Your task to perform on an android device: Play the last video I watched on Youtube Image 0: 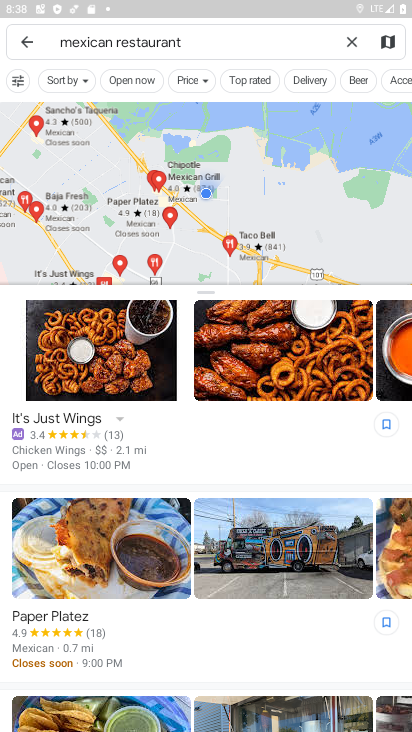
Step 0: press home button
Your task to perform on an android device: Play the last video I watched on Youtube Image 1: 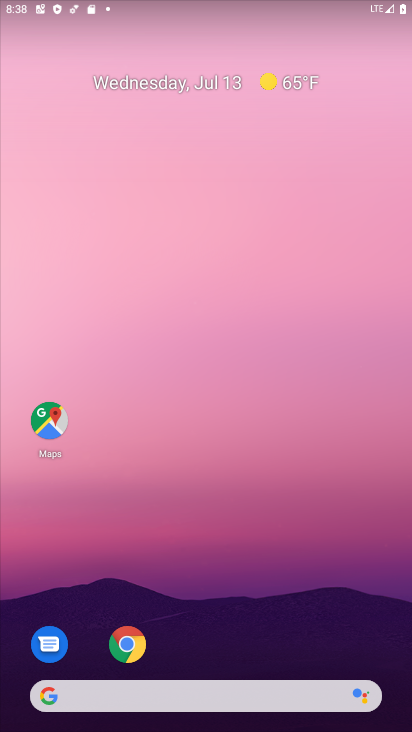
Step 1: drag from (327, 548) to (214, 41)
Your task to perform on an android device: Play the last video I watched on Youtube Image 2: 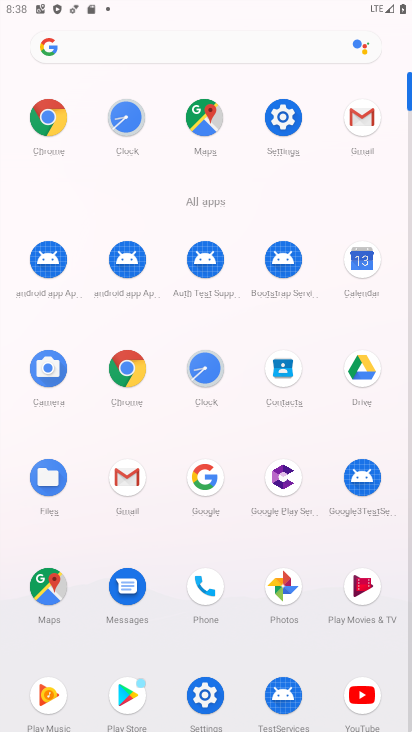
Step 2: click (359, 673)
Your task to perform on an android device: Play the last video I watched on Youtube Image 3: 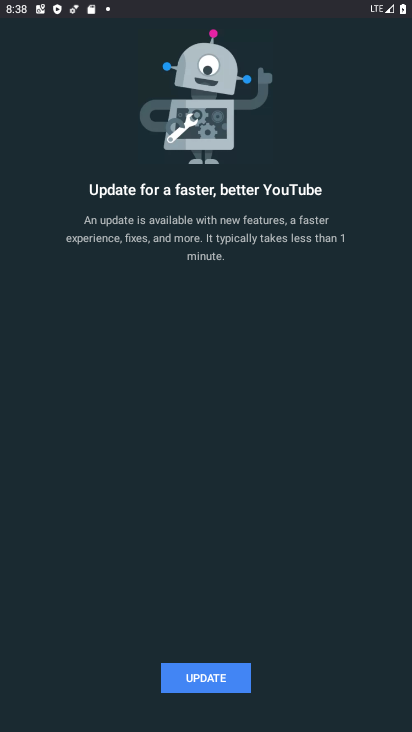
Step 3: click (227, 678)
Your task to perform on an android device: Play the last video I watched on Youtube Image 4: 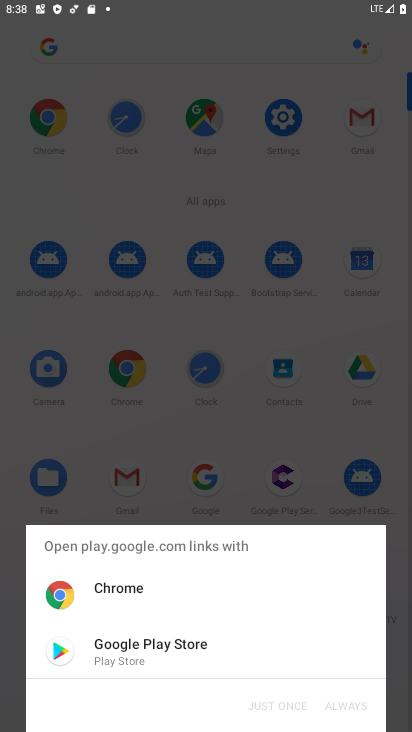
Step 4: click (158, 656)
Your task to perform on an android device: Play the last video I watched on Youtube Image 5: 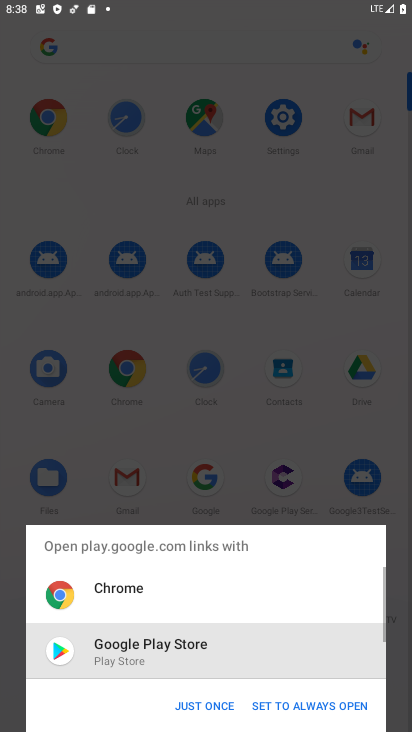
Step 5: click (205, 703)
Your task to perform on an android device: Play the last video I watched on Youtube Image 6: 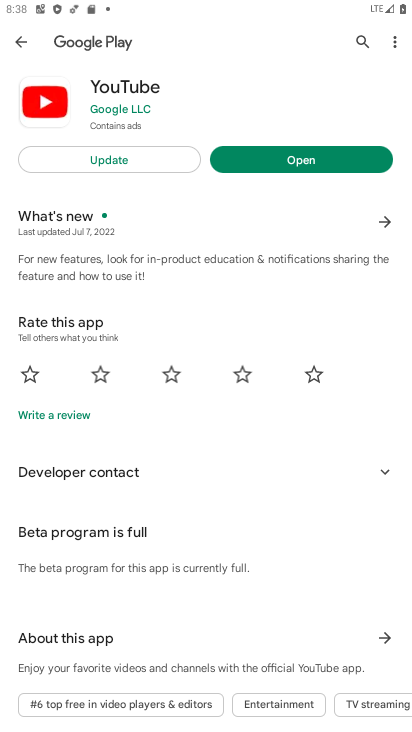
Step 6: click (104, 152)
Your task to perform on an android device: Play the last video I watched on Youtube Image 7: 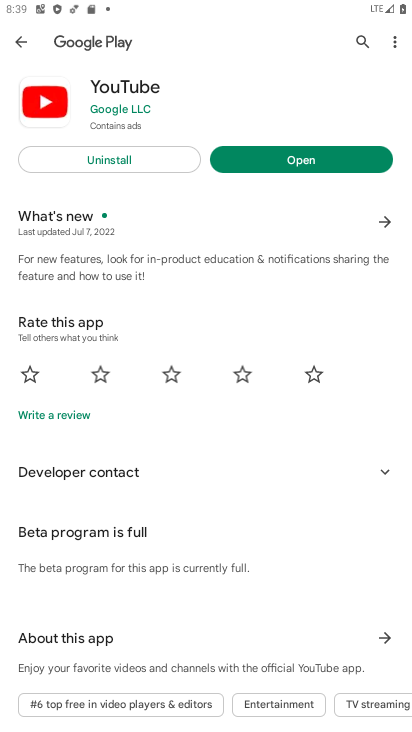
Step 7: click (279, 155)
Your task to perform on an android device: Play the last video I watched on Youtube Image 8: 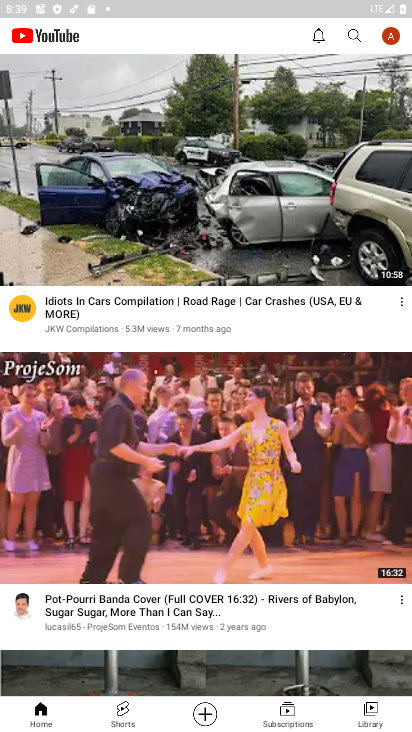
Step 8: click (386, 714)
Your task to perform on an android device: Play the last video I watched on Youtube Image 9: 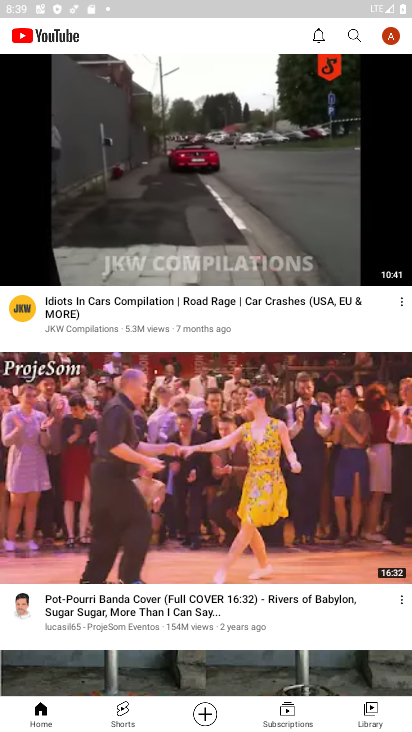
Step 9: click (364, 710)
Your task to perform on an android device: Play the last video I watched on Youtube Image 10: 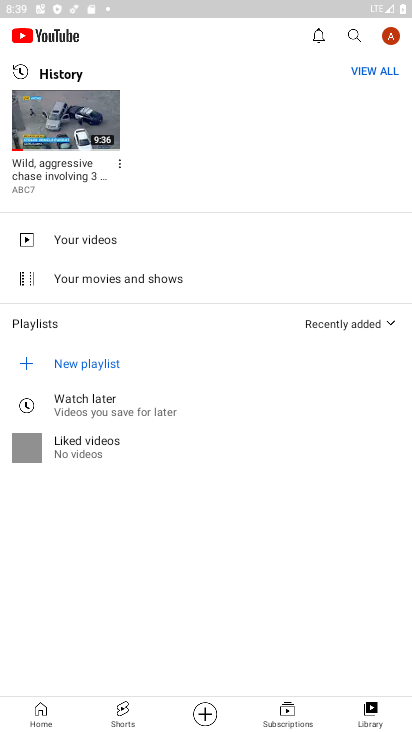
Step 10: click (46, 137)
Your task to perform on an android device: Play the last video I watched on Youtube Image 11: 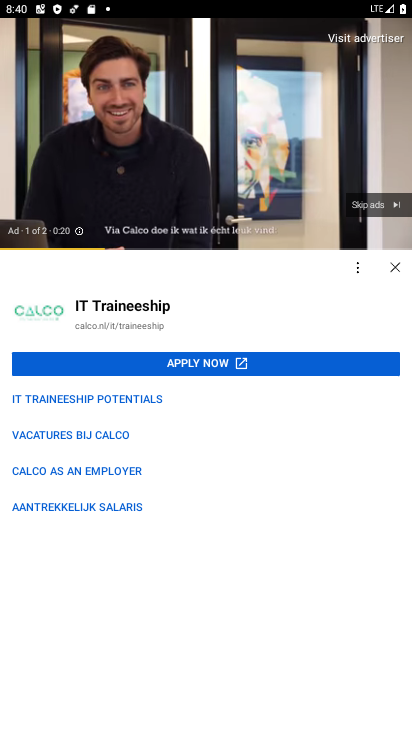
Step 11: click (360, 192)
Your task to perform on an android device: Play the last video I watched on Youtube Image 12: 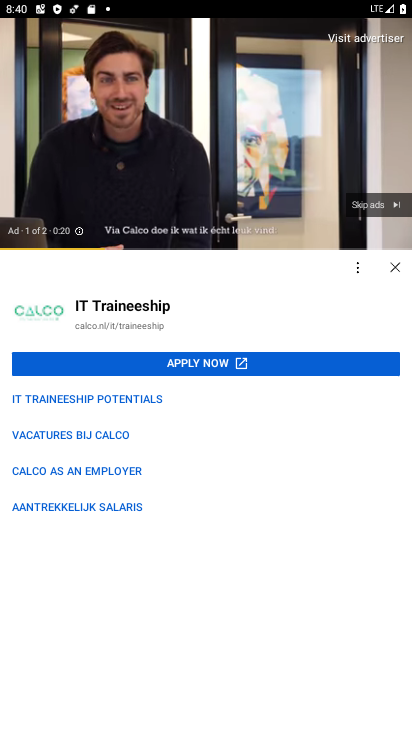
Step 12: click (364, 213)
Your task to perform on an android device: Play the last video I watched on Youtube Image 13: 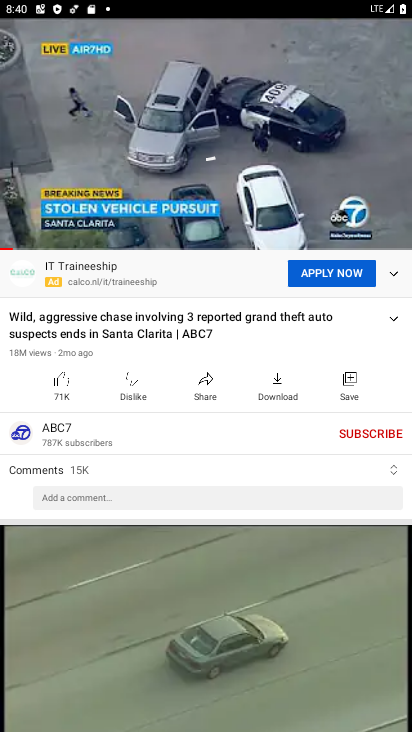
Step 13: click (363, 202)
Your task to perform on an android device: Play the last video I watched on Youtube Image 14: 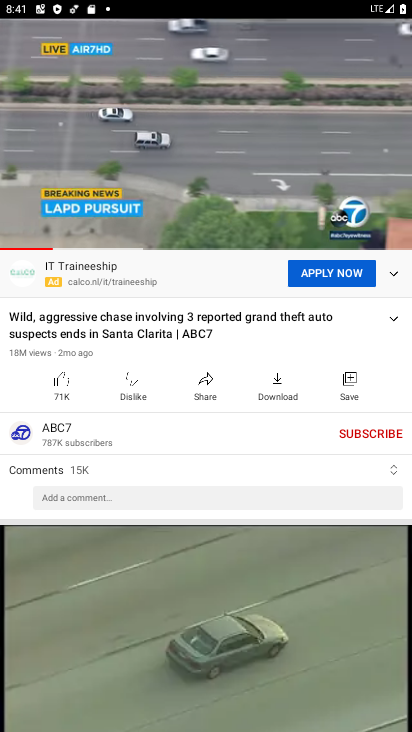
Step 14: task complete